Your task to perform on an android device: find photos in the google photos app Image 0: 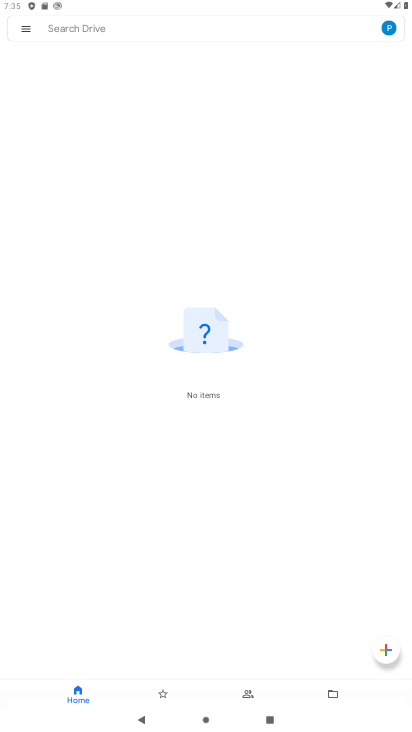
Step 0: press home button
Your task to perform on an android device: find photos in the google photos app Image 1: 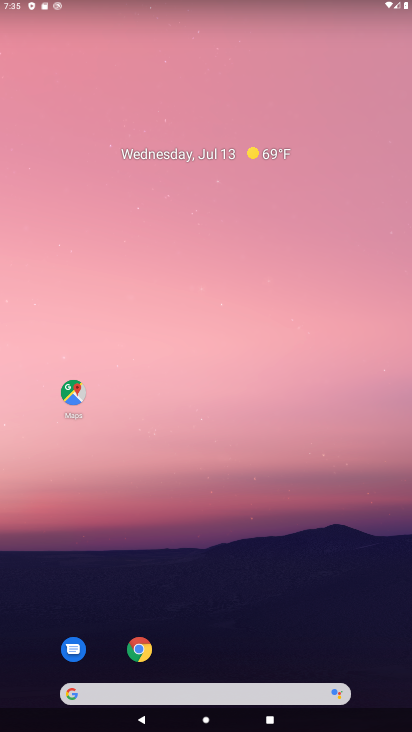
Step 1: drag from (214, 688) to (259, 324)
Your task to perform on an android device: find photos in the google photos app Image 2: 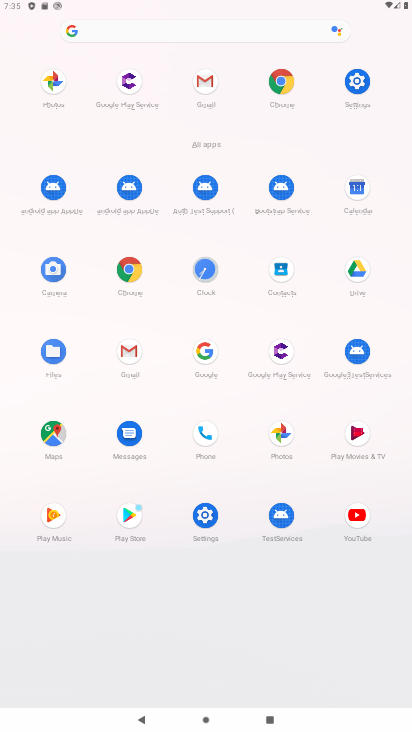
Step 2: click (282, 480)
Your task to perform on an android device: find photos in the google photos app Image 3: 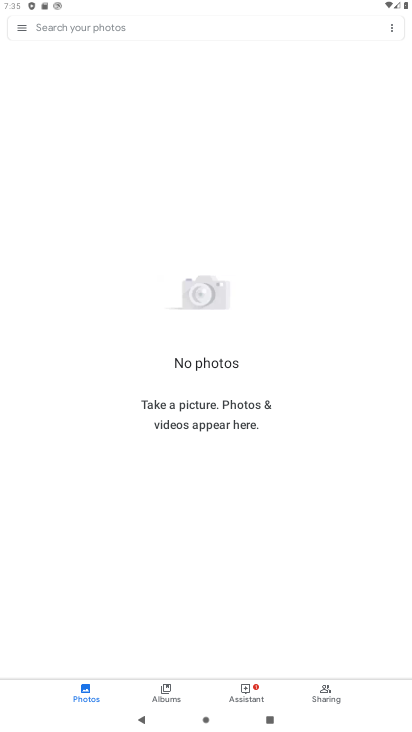
Step 3: task complete